Your task to perform on an android device: star an email in the gmail app Image 0: 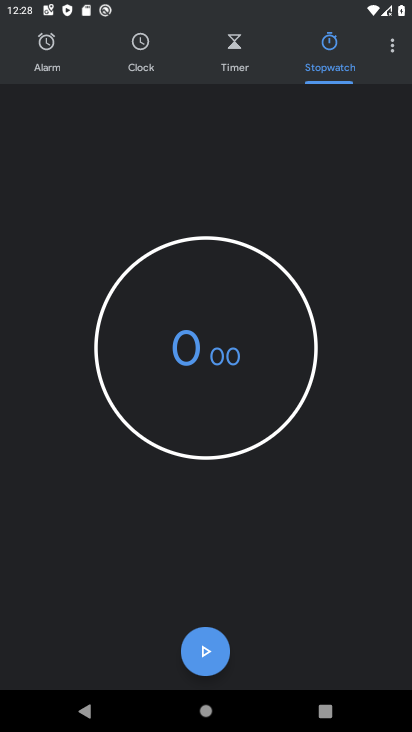
Step 0: press home button
Your task to perform on an android device: star an email in the gmail app Image 1: 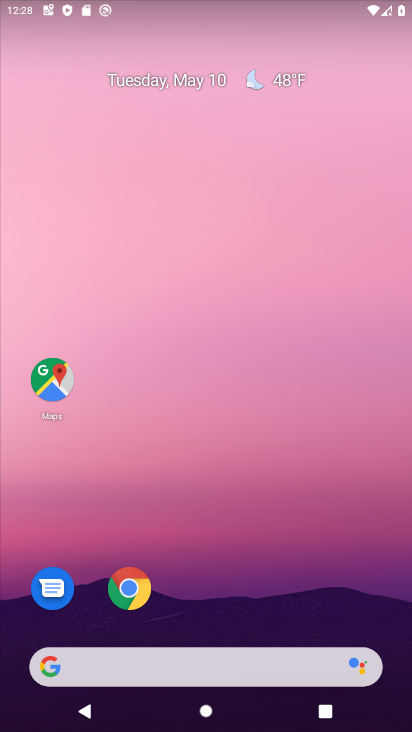
Step 1: click (240, 554)
Your task to perform on an android device: star an email in the gmail app Image 2: 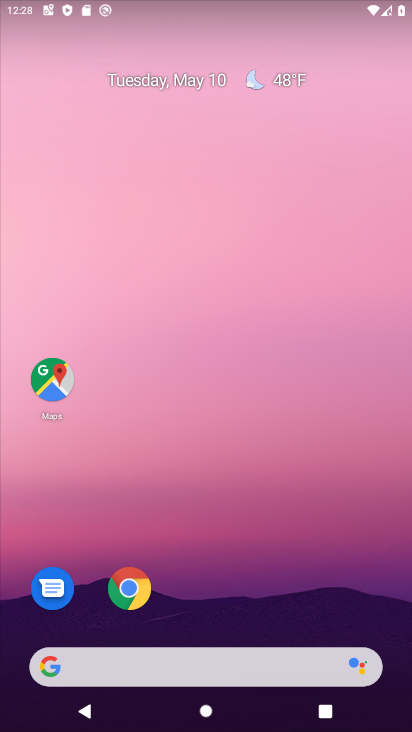
Step 2: click (238, 527)
Your task to perform on an android device: star an email in the gmail app Image 3: 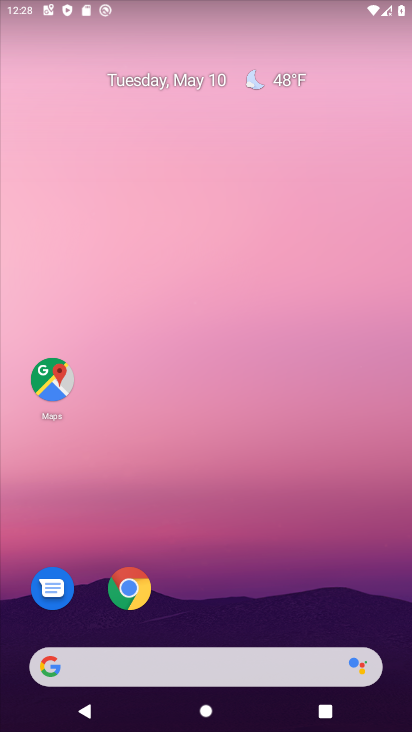
Step 3: drag from (246, 579) to (265, 301)
Your task to perform on an android device: star an email in the gmail app Image 4: 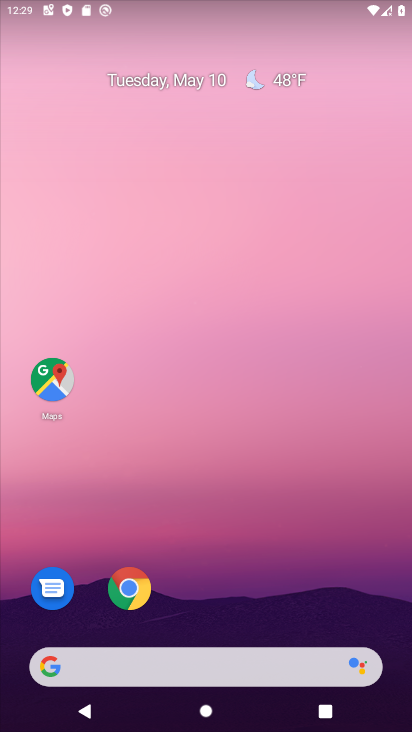
Step 4: drag from (301, 599) to (286, 295)
Your task to perform on an android device: star an email in the gmail app Image 5: 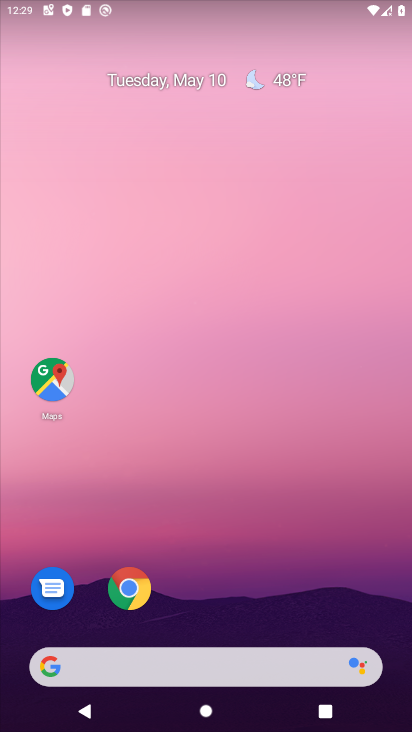
Step 5: drag from (220, 585) to (187, 267)
Your task to perform on an android device: star an email in the gmail app Image 6: 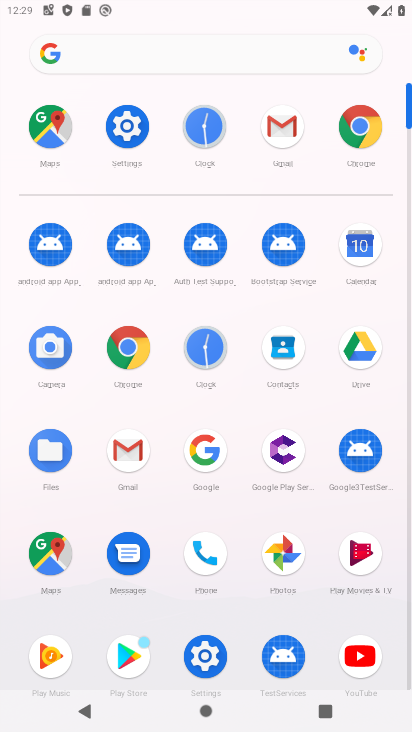
Step 6: click (136, 437)
Your task to perform on an android device: star an email in the gmail app Image 7: 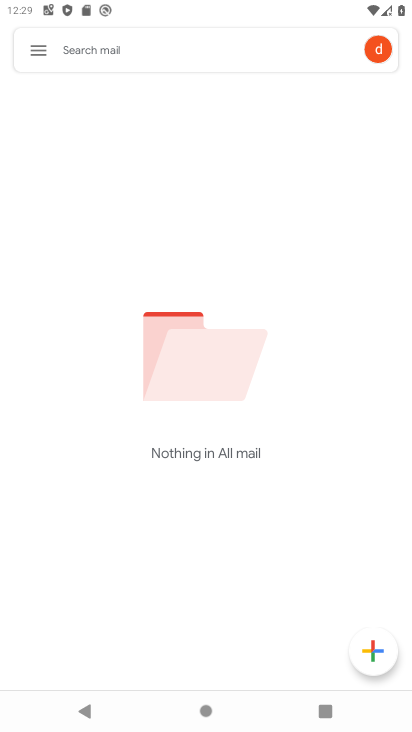
Step 7: drag from (33, 6) to (34, 42)
Your task to perform on an android device: star an email in the gmail app Image 8: 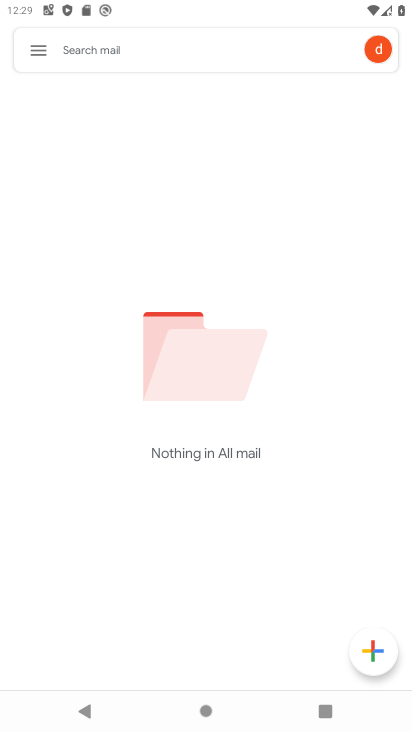
Step 8: click (25, 43)
Your task to perform on an android device: star an email in the gmail app Image 9: 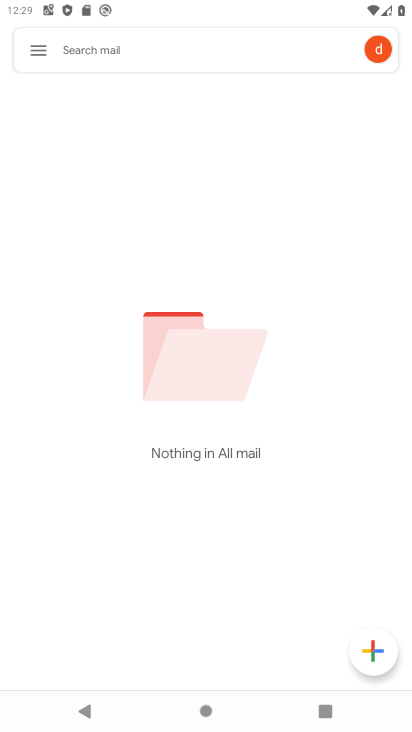
Step 9: click (35, 53)
Your task to perform on an android device: star an email in the gmail app Image 10: 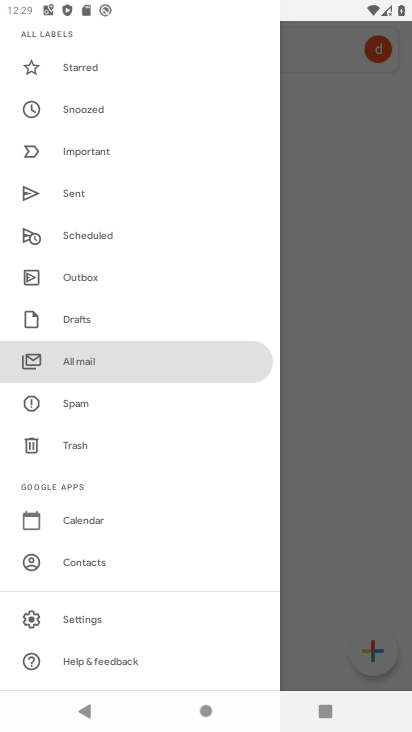
Step 10: click (96, 68)
Your task to perform on an android device: star an email in the gmail app Image 11: 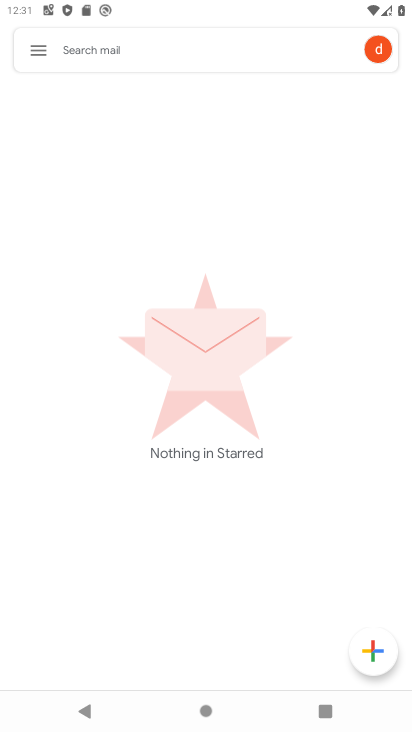
Step 11: task complete